Your task to perform on an android device: Open Google Chrome and click the shortcut for Amazon.com Image 0: 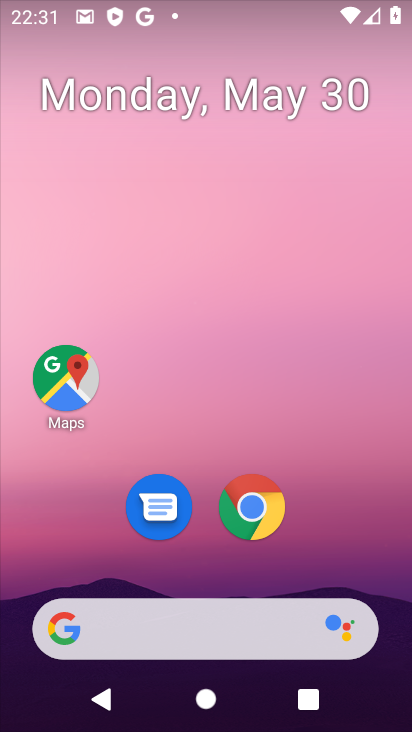
Step 0: drag from (362, 564) to (351, 200)
Your task to perform on an android device: Open Google Chrome and click the shortcut for Amazon.com Image 1: 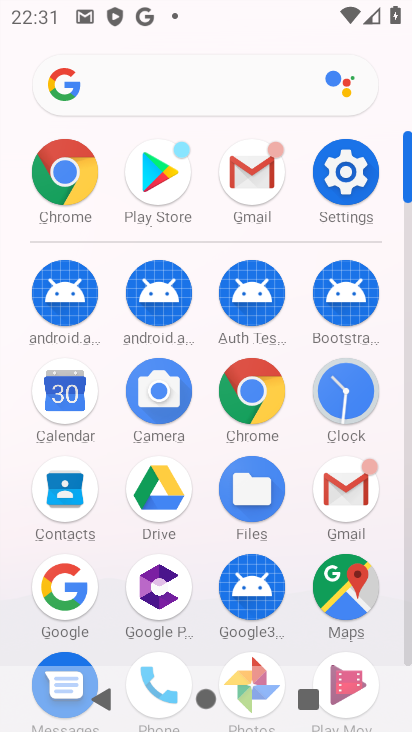
Step 1: click (266, 413)
Your task to perform on an android device: Open Google Chrome and click the shortcut for Amazon.com Image 2: 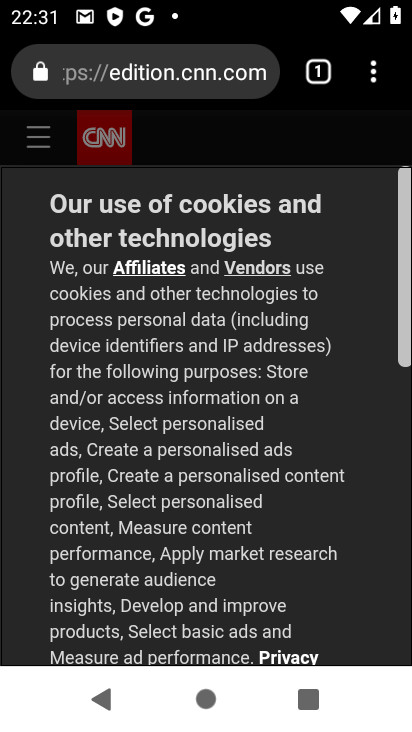
Step 2: press back button
Your task to perform on an android device: Open Google Chrome and click the shortcut for Amazon.com Image 3: 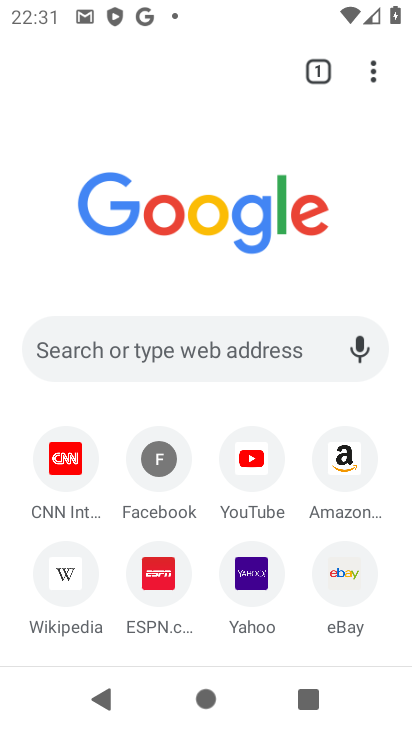
Step 3: click (333, 465)
Your task to perform on an android device: Open Google Chrome and click the shortcut for Amazon.com Image 4: 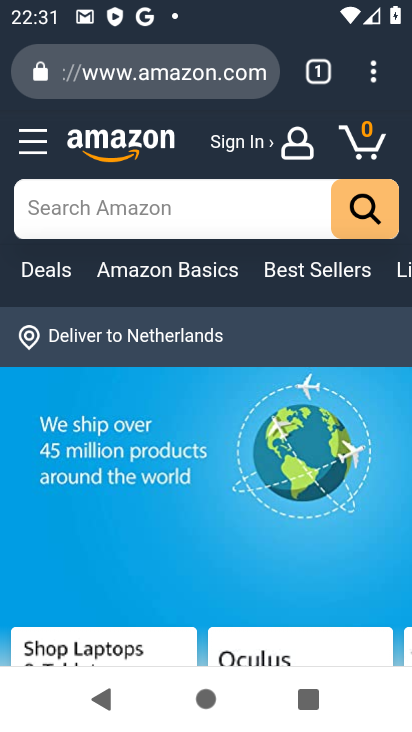
Step 4: task complete